Your task to perform on an android device: Go to wifi settings Image 0: 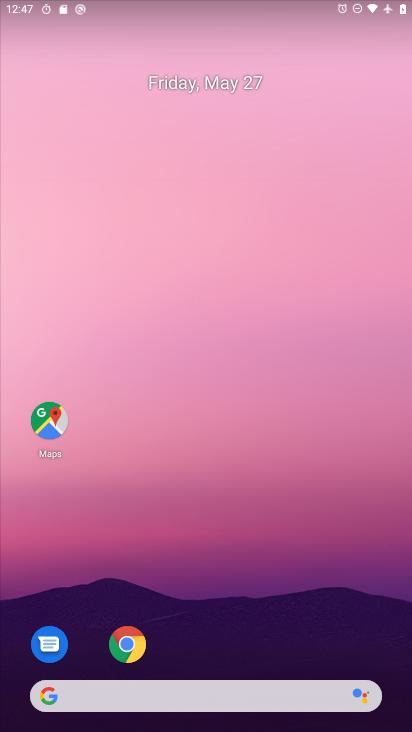
Step 0: drag from (181, 460) to (181, 399)
Your task to perform on an android device: Go to wifi settings Image 1: 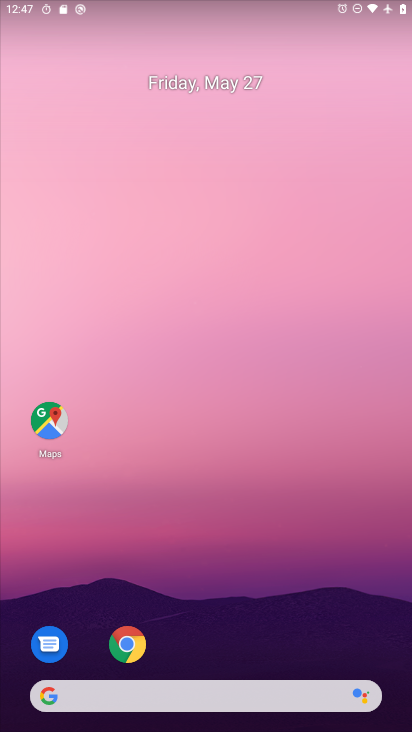
Step 1: drag from (225, 643) to (228, 269)
Your task to perform on an android device: Go to wifi settings Image 2: 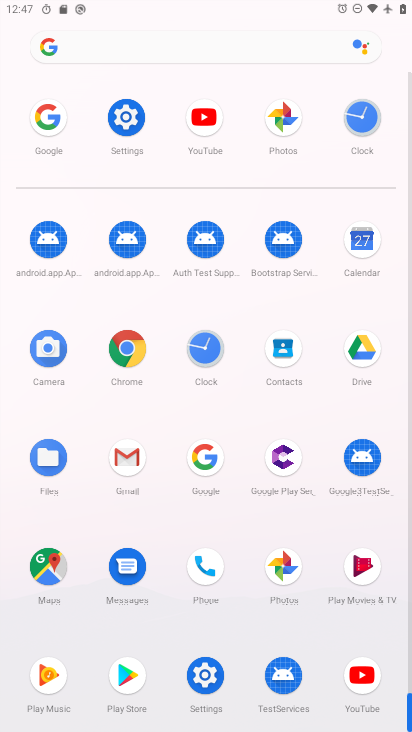
Step 2: click (114, 119)
Your task to perform on an android device: Go to wifi settings Image 3: 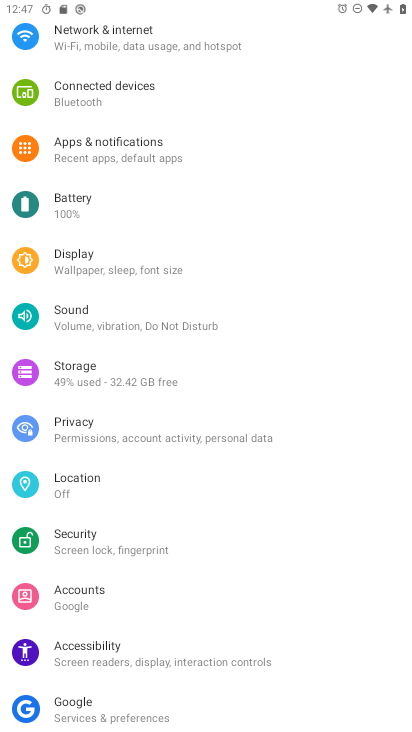
Step 3: drag from (184, 153) to (202, 360)
Your task to perform on an android device: Go to wifi settings Image 4: 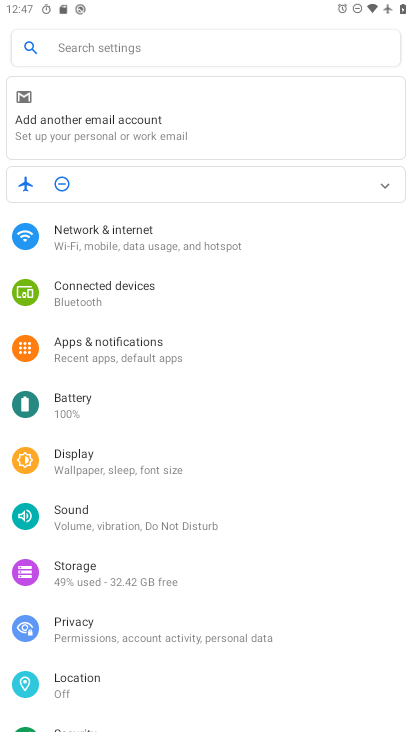
Step 4: click (165, 237)
Your task to perform on an android device: Go to wifi settings Image 5: 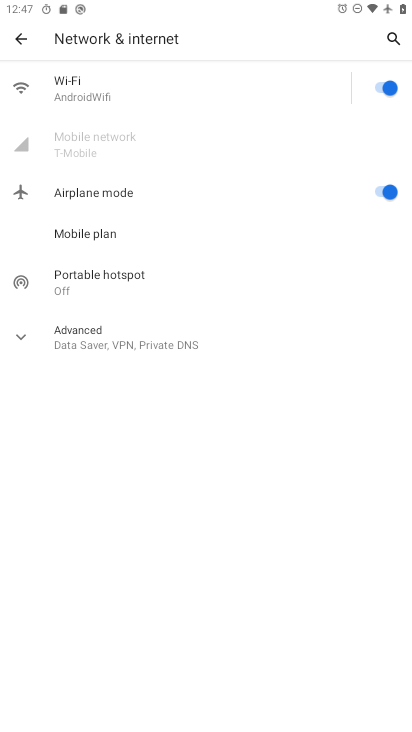
Step 5: click (110, 85)
Your task to perform on an android device: Go to wifi settings Image 6: 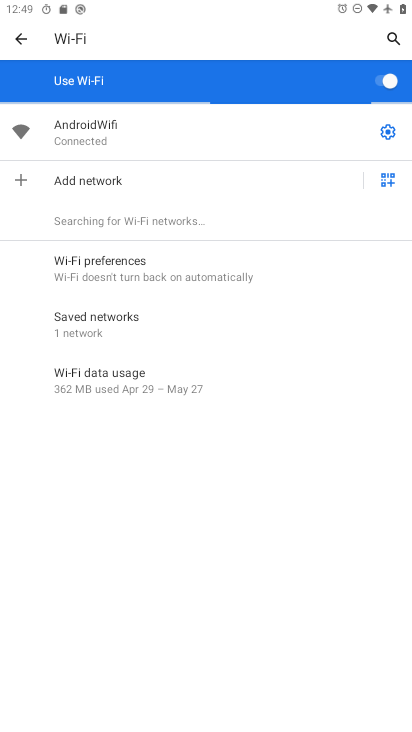
Step 6: task complete